Your task to perform on an android device: all mails in gmail Image 0: 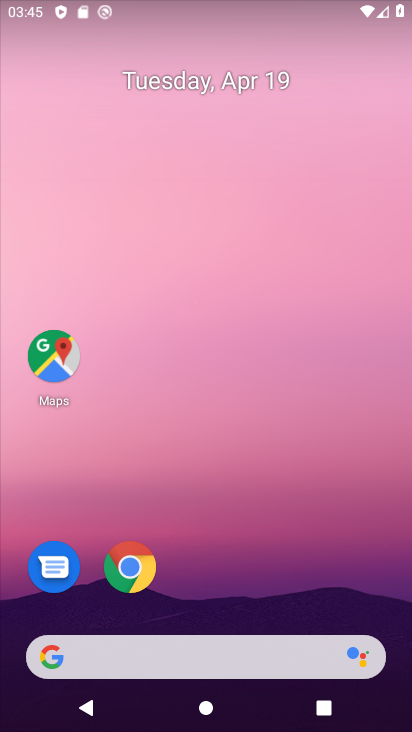
Step 0: drag from (209, 631) to (309, 77)
Your task to perform on an android device: all mails in gmail Image 1: 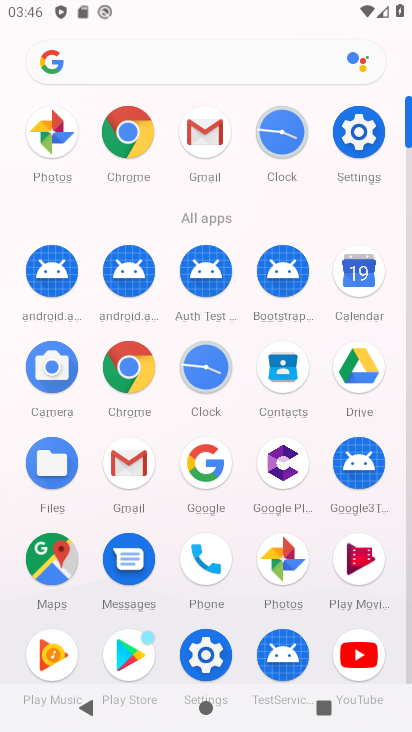
Step 1: click (131, 458)
Your task to perform on an android device: all mails in gmail Image 2: 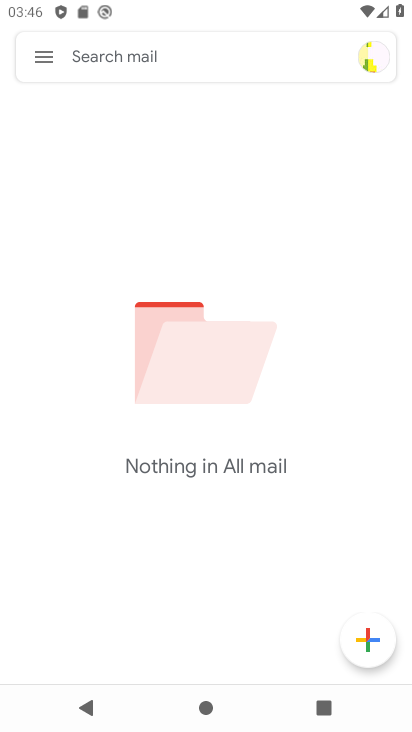
Step 2: click (31, 52)
Your task to perform on an android device: all mails in gmail Image 3: 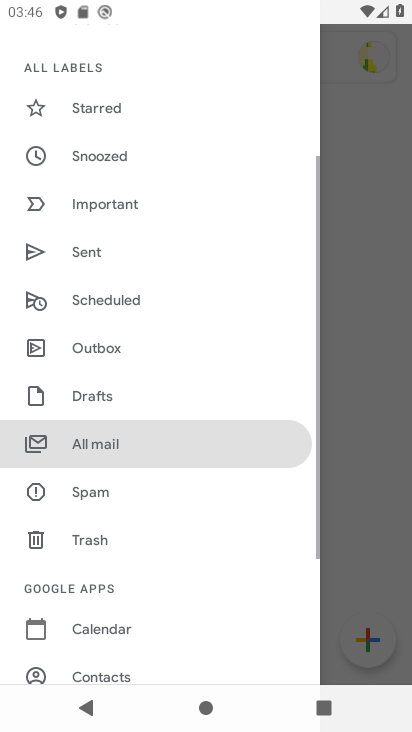
Step 3: click (171, 445)
Your task to perform on an android device: all mails in gmail Image 4: 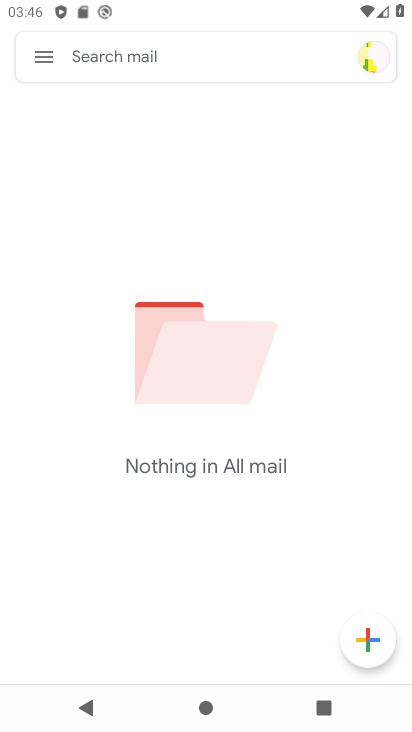
Step 4: task complete